Your task to perform on an android device: allow notifications from all sites in the chrome app Image 0: 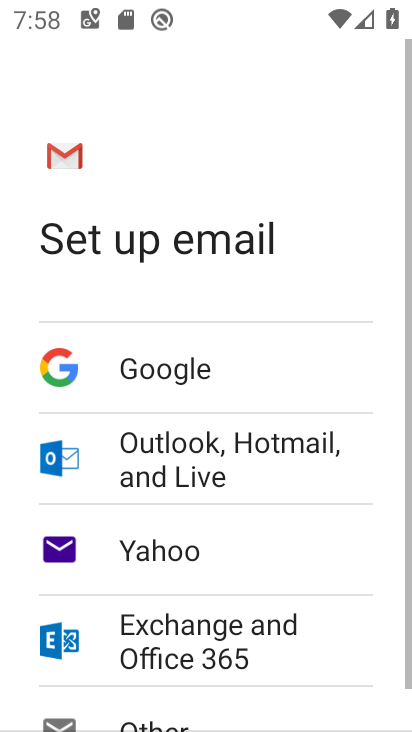
Step 0: press home button
Your task to perform on an android device: allow notifications from all sites in the chrome app Image 1: 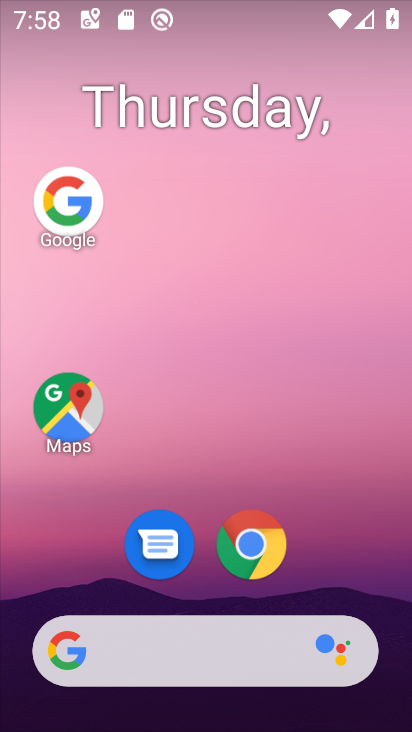
Step 1: drag from (197, 703) to (243, 99)
Your task to perform on an android device: allow notifications from all sites in the chrome app Image 2: 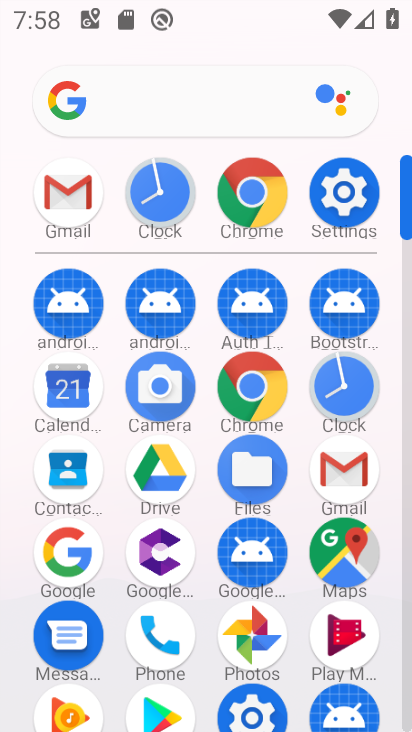
Step 2: click (251, 398)
Your task to perform on an android device: allow notifications from all sites in the chrome app Image 3: 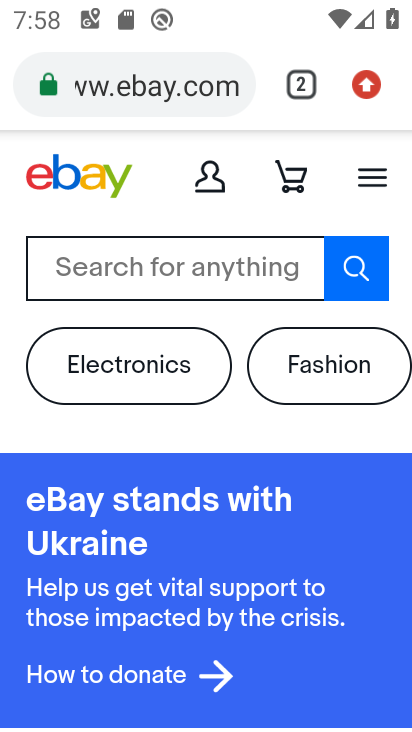
Step 3: click (368, 79)
Your task to perform on an android device: allow notifications from all sites in the chrome app Image 4: 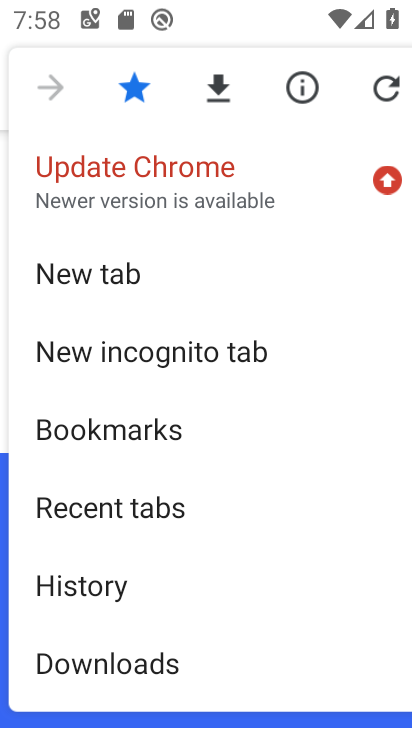
Step 4: drag from (217, 476) to (253, 220)
Your task to perform on an android device: allow notifications from all sites in the chrome app Image 5: 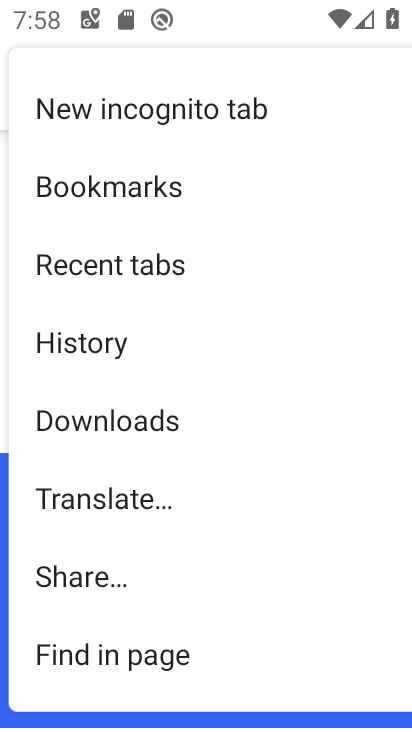
Step 5: drag from (147, 573) to (180, 236)
Your task to perform on an android device: allow notifications from all sites in the chrome app Image 6: 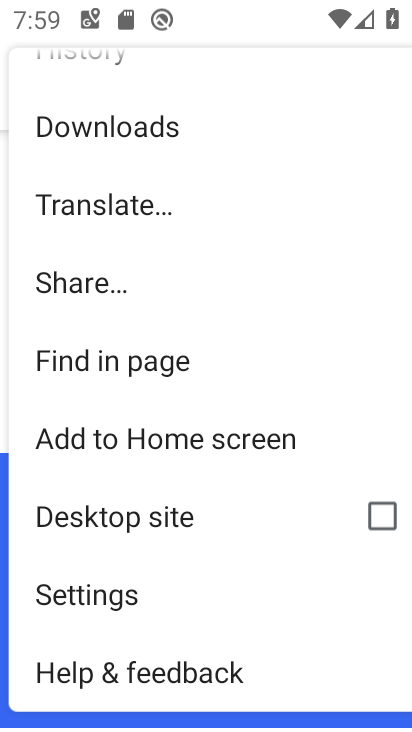
Step 6: click (106, 586)
Your task to perform on an android device: allow notifications from all sites in the chrome app Image 7: 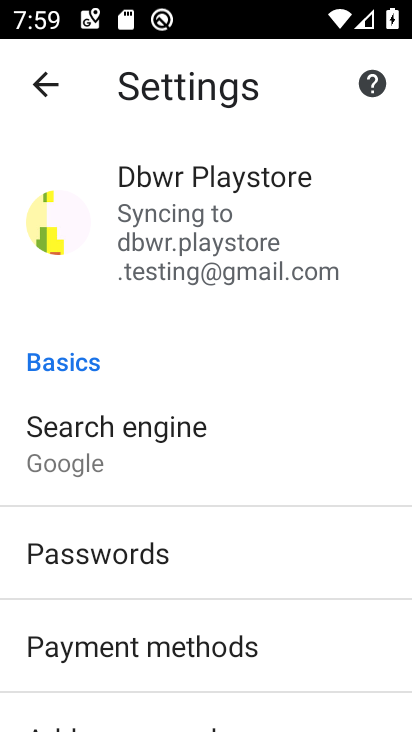
Step 7: drag from (120, 583) to (222, 226)
Your task to perform on an android device: allow notifications from all sites in the chrome app Image 8: 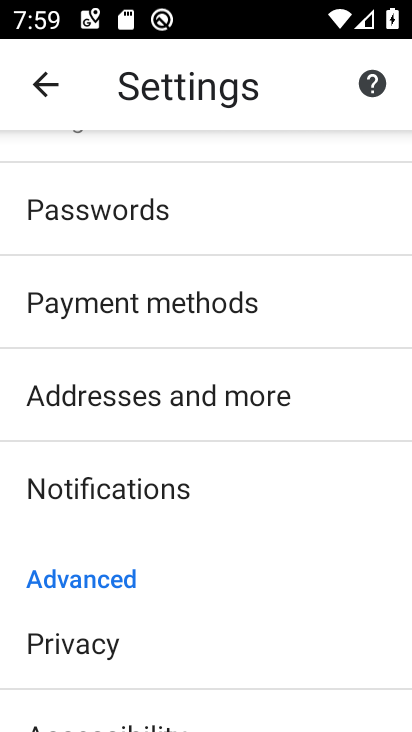
Step 8: drag from (201, 562) to (240, 336)
Your task to perform on an android device: allow notifications from all sites in the chrome app Image 9: 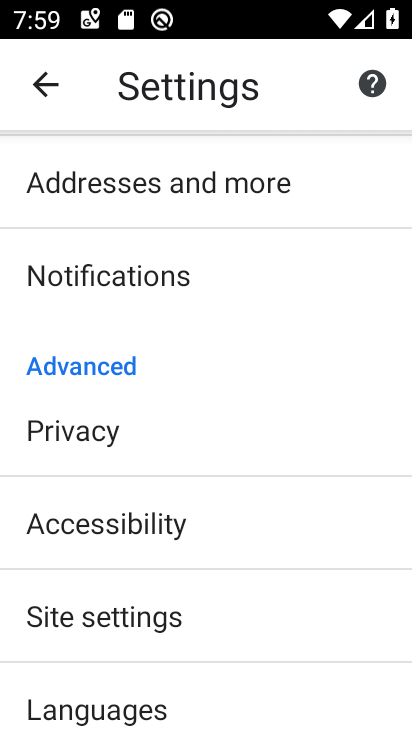
Step 9: drag from (170, 545) to (175, 447)
Your task to perform on an android device: allow notifications from all sites in the chrome app Image 10: 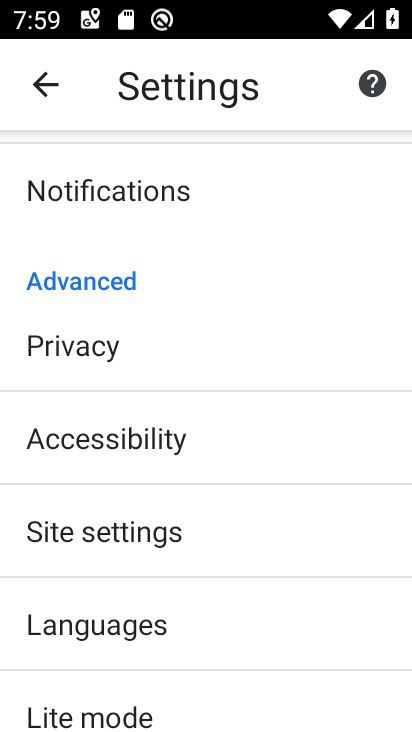
Step 10: click (95, 523)
Your task to perform on an android device: allow notifications from all sites in the chrome app Image 11: 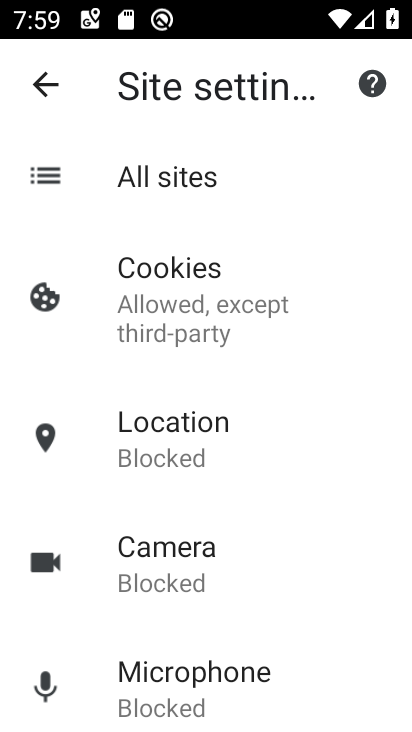
Step 11: drag from (165, 608) to (188, 279)
Your task to perform on an android device: allow notifications from all sites in the chrome app Image 12: 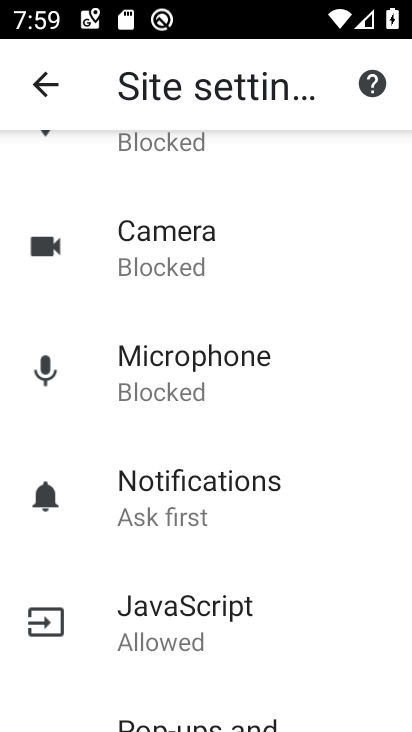
Step 12: click (166, 501)
Your task to perform on an android device: allow notifications from all sites in the chrome app Image 13: 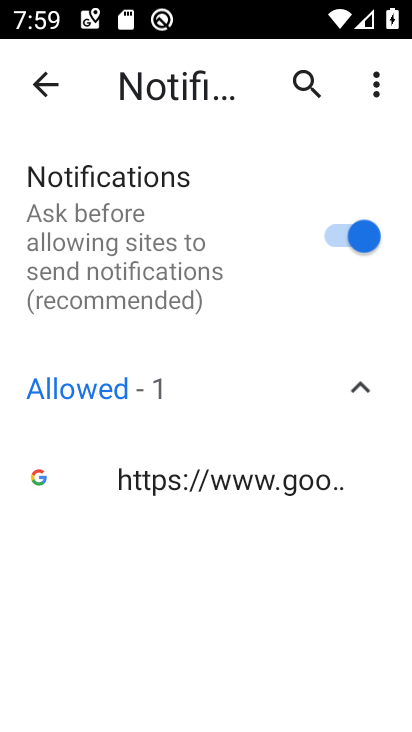
Step 13: click (288, 225)
Your task to perform on an android device: allow notifications from all sites in the chrome app Image 14: 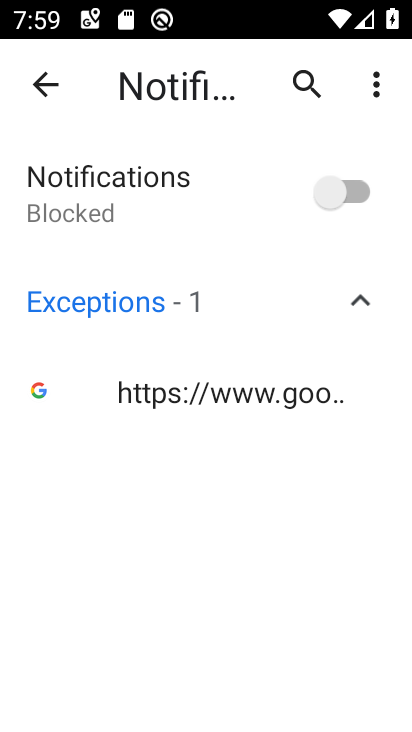
Step 14: click (288, 225)
Your task to perform on an android device: allow notifications from all sites in the chrome app Image 15: 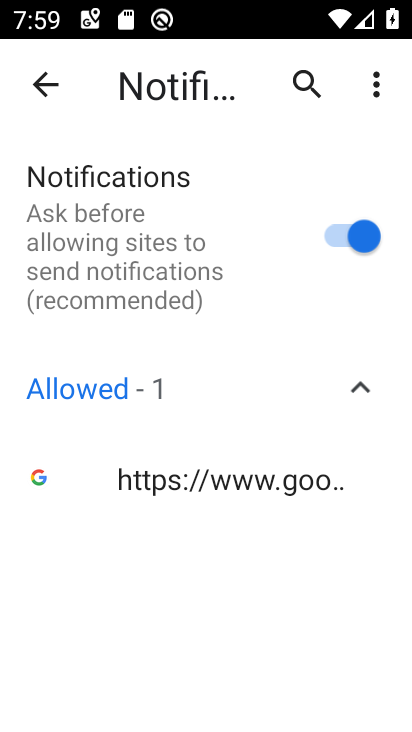
Step 15: task complete